Your task to perform on an android device: move an email to a new category in the gmail app Image 0: 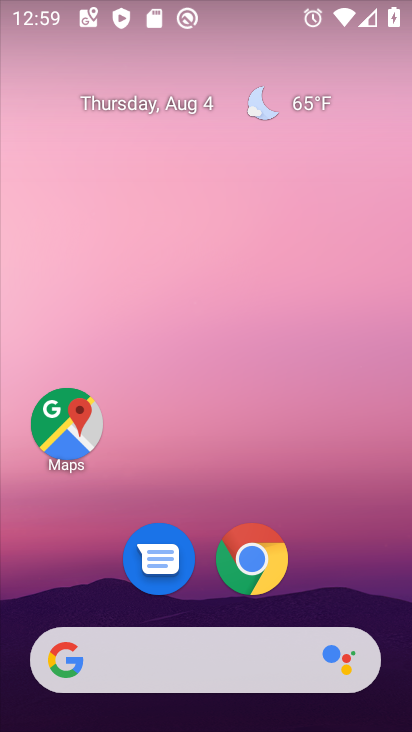
Step 0: drag from (186, 665) to (262, 98)
Your task to perform on an android device: move an email to a new category in the gmail app Image 1: 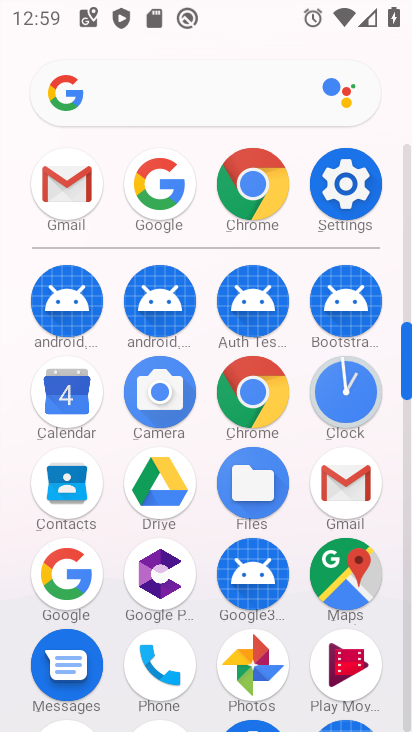
Step 1: click (66, 186)
Your task to perform on an android device: move an email to a new category in the gmail app Image 2: 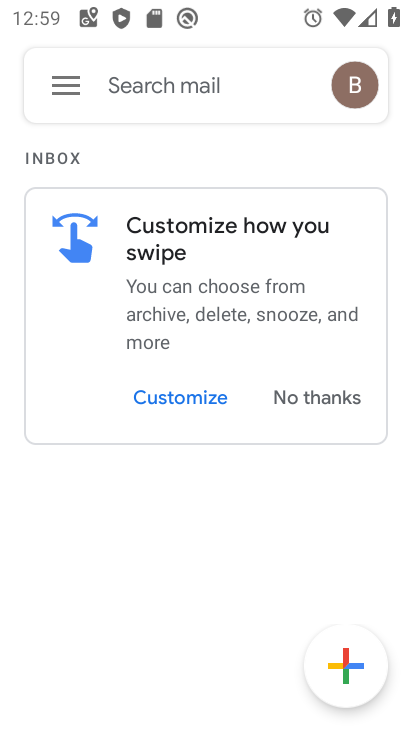
Step 2: click (64, 83)
Your task to perform on an android device: move an email to a new category in the gmail app Image 3: 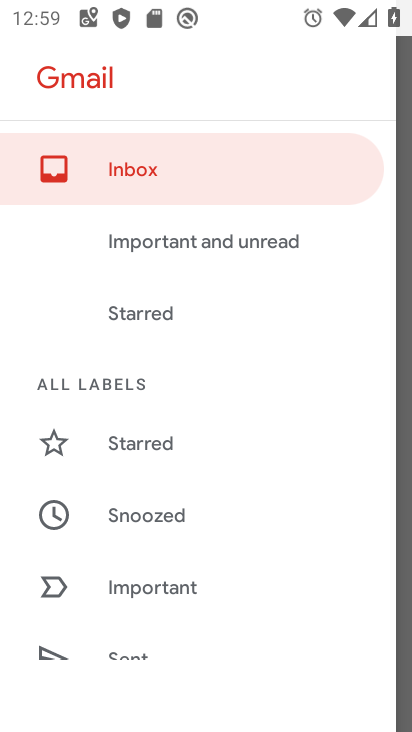
Step 3: drag from (121, 591) to (145, 426)
Your task to perform on an android device: move an email to a new category in the gmail app Image 4: 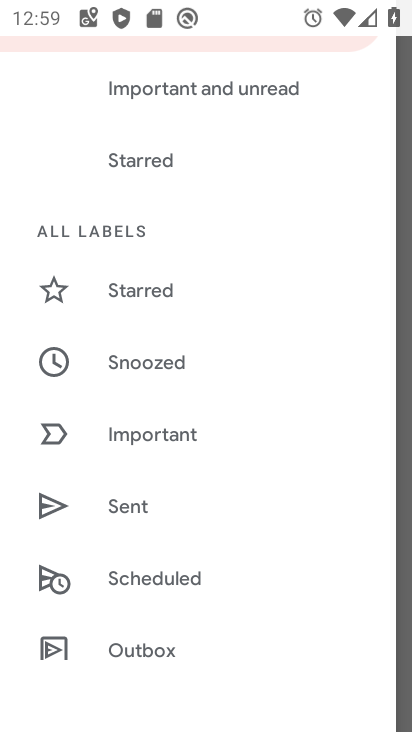
Step 4: drag from (146, 619) to (145, 491)
Your task to perform on an android device: move an email to a new category in the gmail app Image 5: 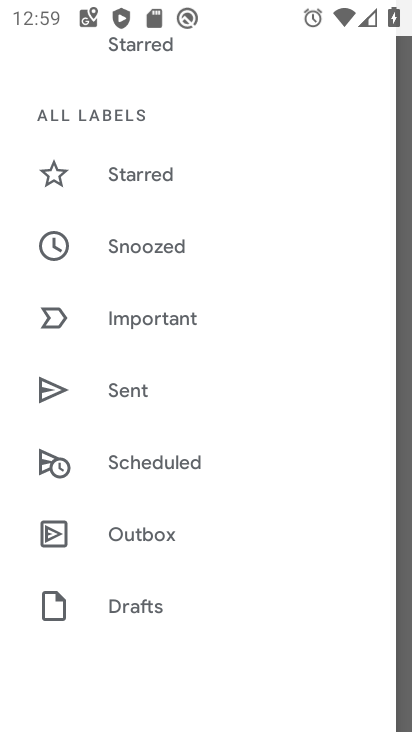
Step 5: drag from (135, 591) to (152, 446)
Your task to perform on an android device: move an email to a new category in the gmail app Image 6: 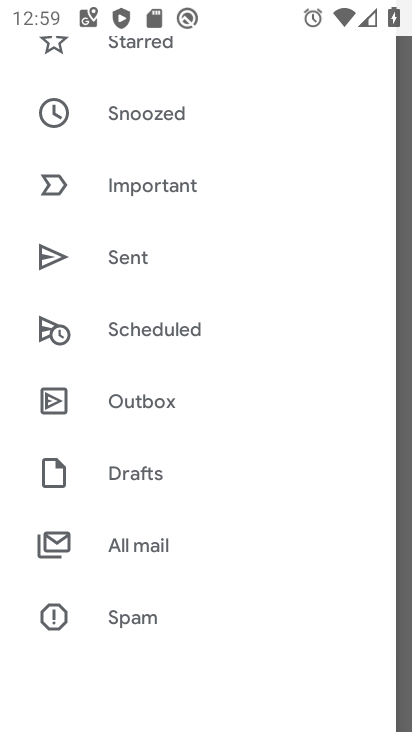
Step 6: click (155, 540)
Your task to perform on an android device: move an email to a new category in the gmail app Image 7: 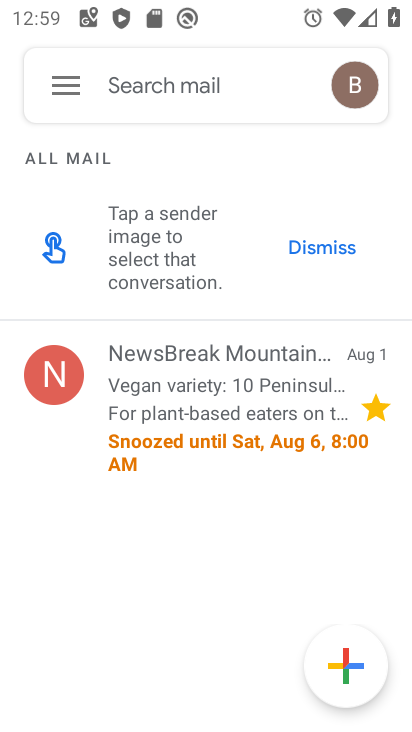
Step 7: click (212, 390)
Your task to perform on an android device: move an email to a new category in the gmail app Image 8: 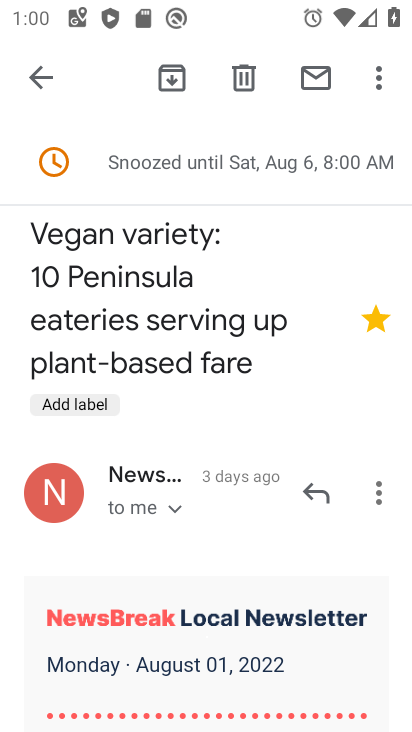
Step 8: click (381, 83)
Your task to perform on an android device: move an email to a new category in the gmail app Image 9: 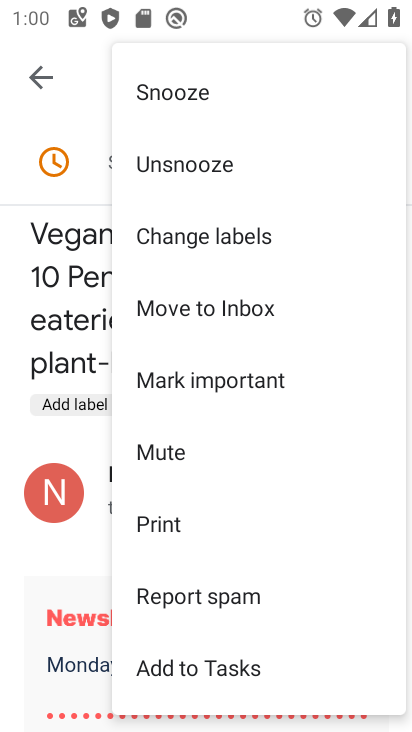
Step 9: drag from (207, 543) to (257, 419)
Your task to perform on an android device: move an email to a new category in the gmail app Image 10: 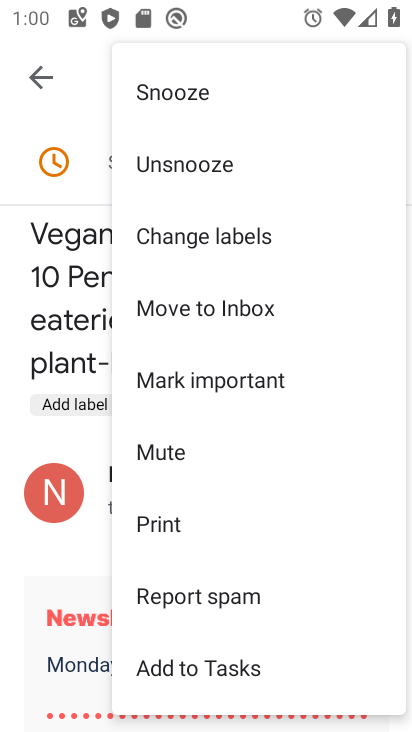
Step 10: click (231, 299)
Your task to perform on an android device: move an email to a new category in the gmail app Image 11: 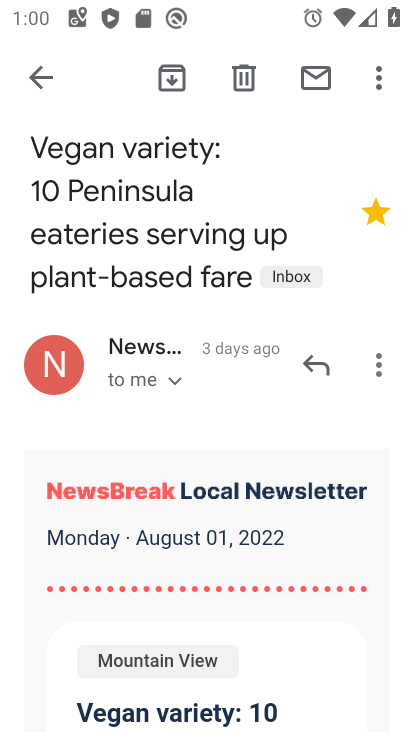
Step 11: task complete